Your task to perform on an android device: turn off smart reply in the gmail app Image 0: 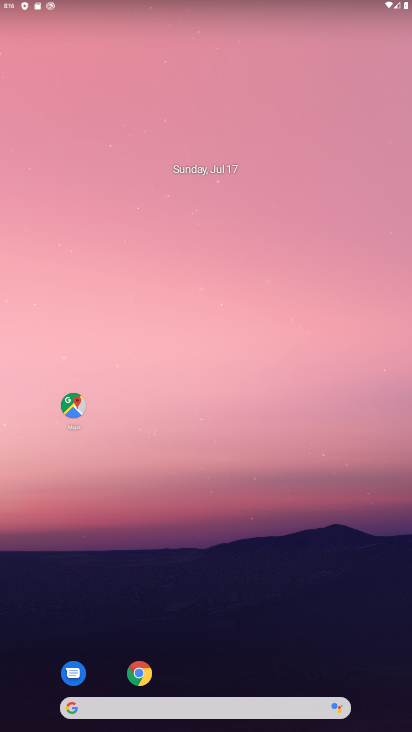
Step 0: drag from (281, 676) to (268, 129)
Your task to perform on an android device: turn off smart reply in the gmail app Image 1: 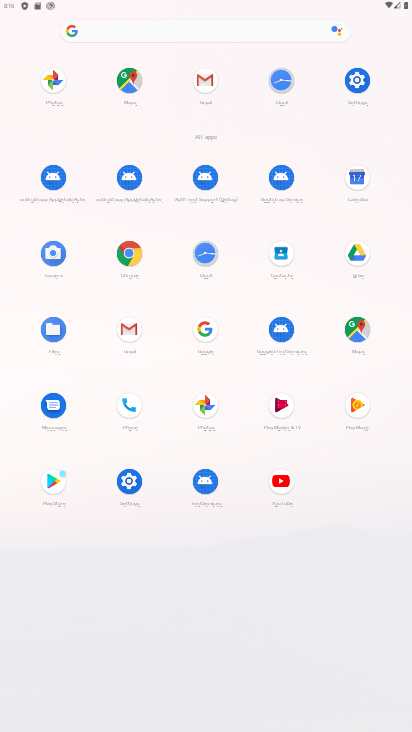
Step 1: click (201, 73)
Your task to perform on an android device: turn off smart reply in the gmail app Image 2: 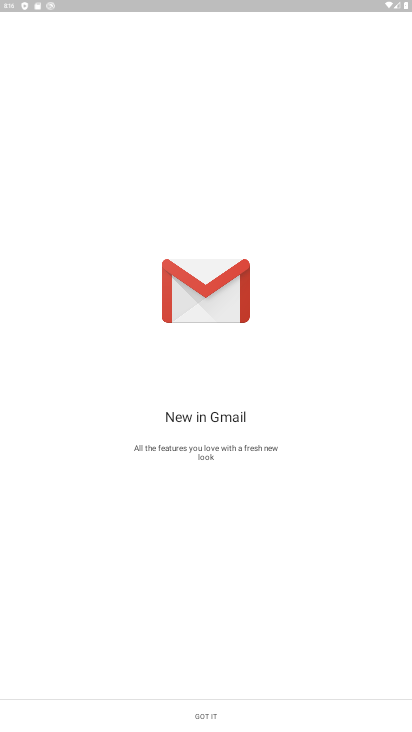
Step 2: click (170, 707)
Your task to perform on an android device: turn off smart reply in the gmail app Image 3: 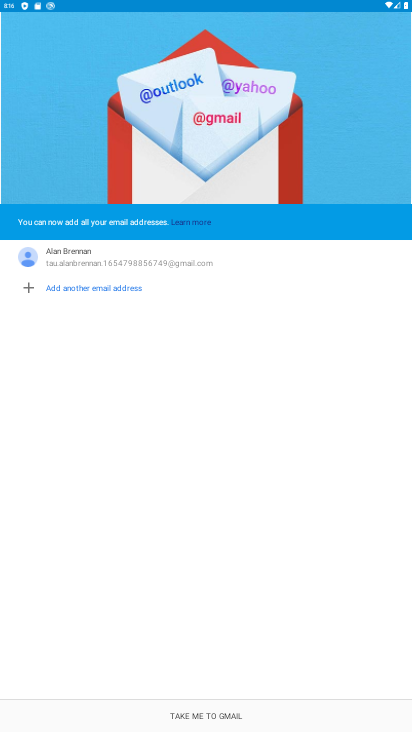
Step 3: click (156, 722)
Your task to perform on an android device: turn off smart reply in the gmail app Image 4: 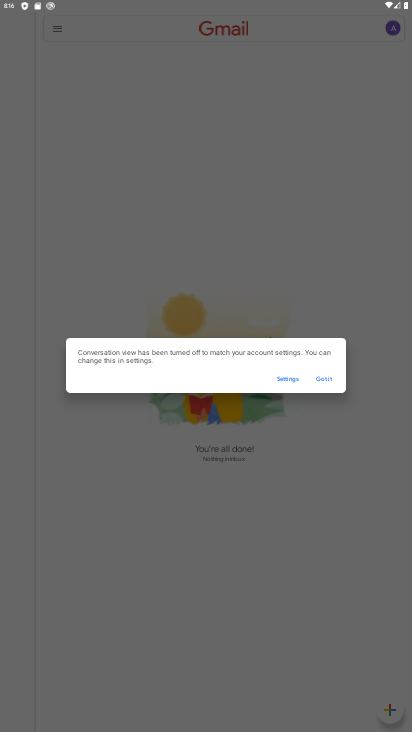
Step 4: click (327, 379)
Your task to perform on an android device: turn off smart reply in the gmail app Image 5: 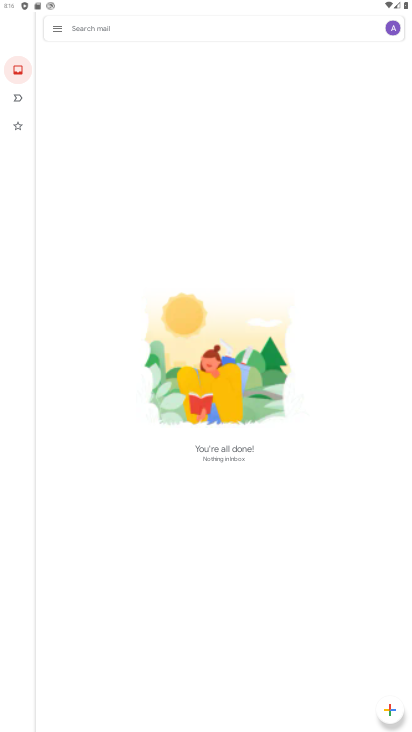
Step 5: click (53, 32)
Your task to perform on an android device: turn off smart reply in the gmail app Image 6: 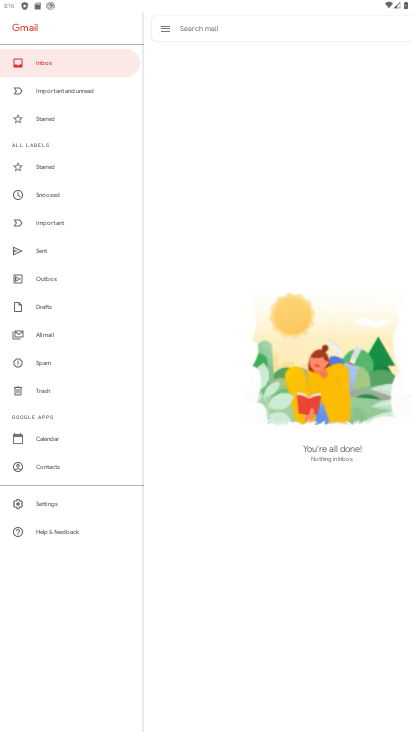
Step 6: click (20, 501)
Your task to perform on an android device: turn off smart reply in the gmail app Image 7: 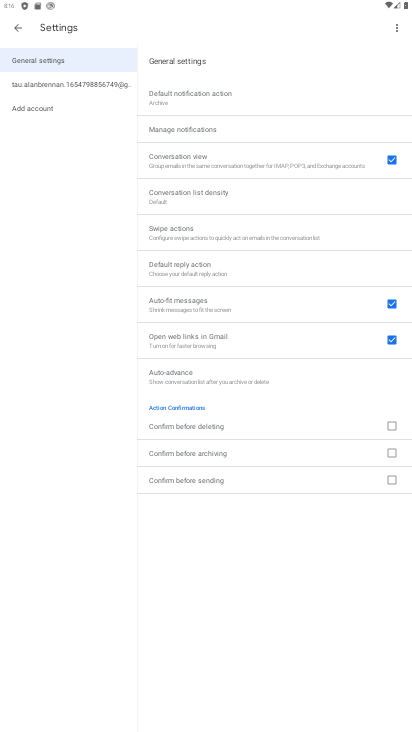
Step 7: click (89, 85)
Your task to perform on an android device: turn off smart reply in the gmail app Image 8: 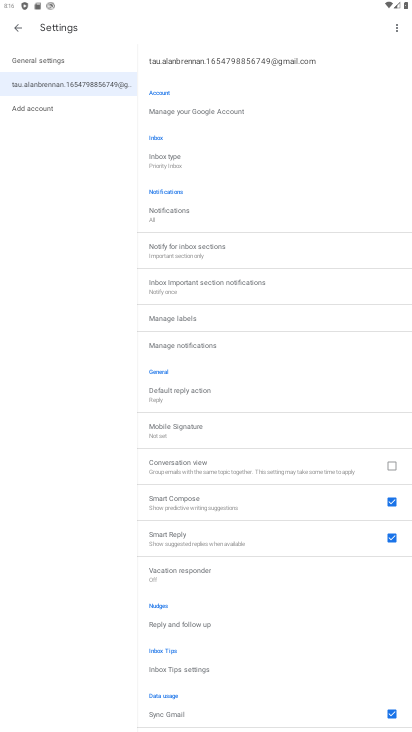
Step 8: click (381, 532)
Your task to perform on an android device: turn off smart reply in the gmail app Image 9: 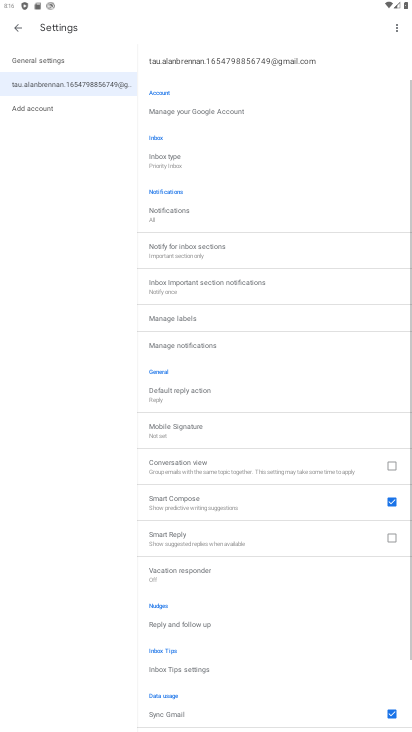
Step 9: task complete